Your task to perform on an android device: Show me popular videos on Youtube Image 0: 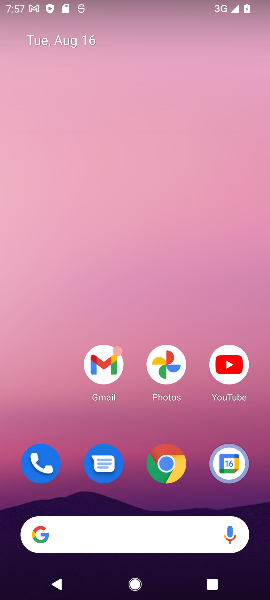
Step 0: drag from (119, 485) to (135, 111)
Your task to perform on an android device: Show me popular videos on Youtube Image 1: 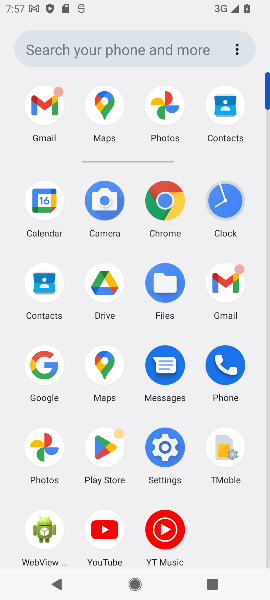
Step 1: click (101, 537)
Your task to perform on an android device: Show me popular videos on Youtube Image 2: 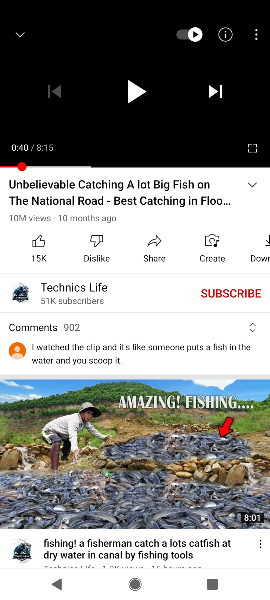
Step 2: click (21, 36)
Your task to perform on an android device: Show me popular videos on Youtube Image 3: 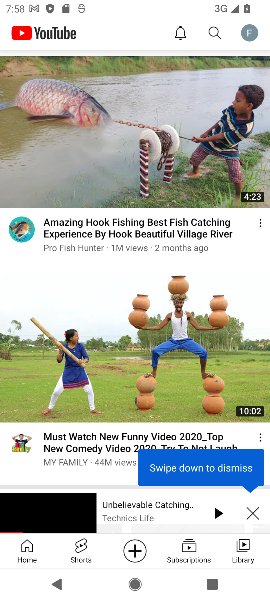
Step 3: click (252, 502)
Your task to perform on an android device: Show me popular videos on Youtube Image 4: 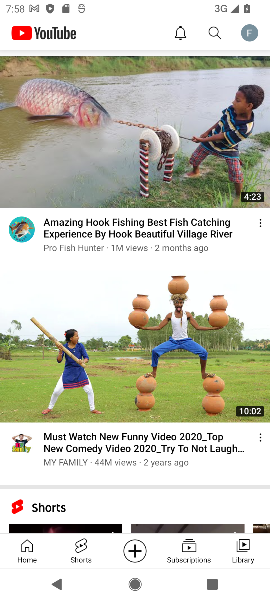
Step 4: drag from (139, 71) to (33, 587)
Your task to perform on an android device: Show me popular videos on Youtube Image 5: 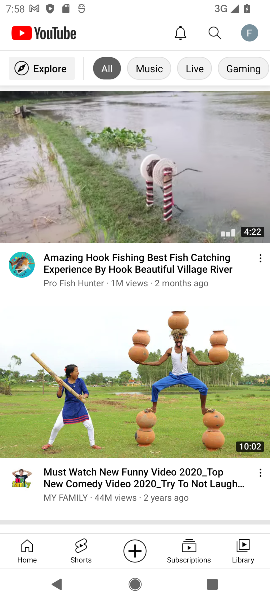
Step 5: click (31, 64)
Your task to perform on an android device: Show me popular videos on Youtube Image 6: 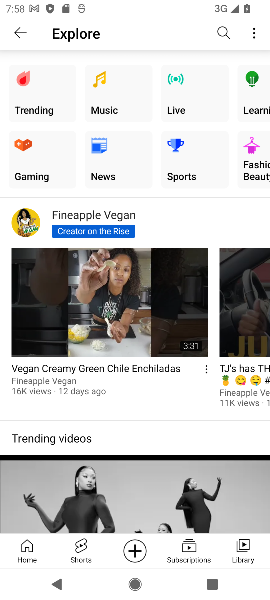
Step 6: click (41, 92)
Your task to perform on an android device: Show me popular videos on Youtube Image 7: 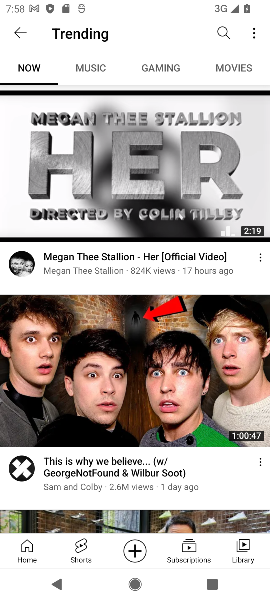
Step 7: task complete